Your task to perform on an android device: check battery use Image 0: 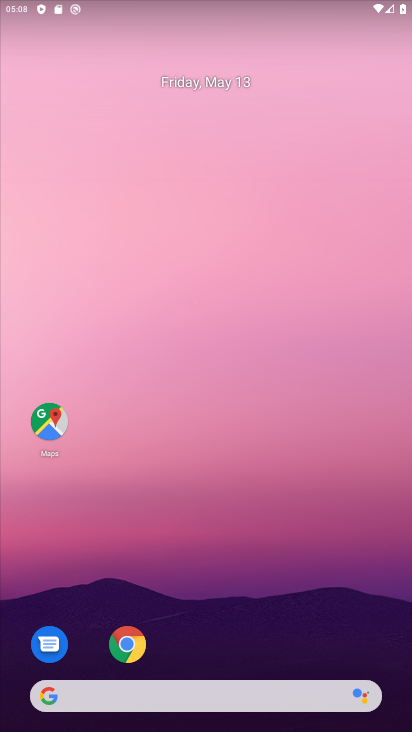
Step 0: drag from (175, 637) to (292, 60)
Your task to perform on an android device: check battery use Image 1: 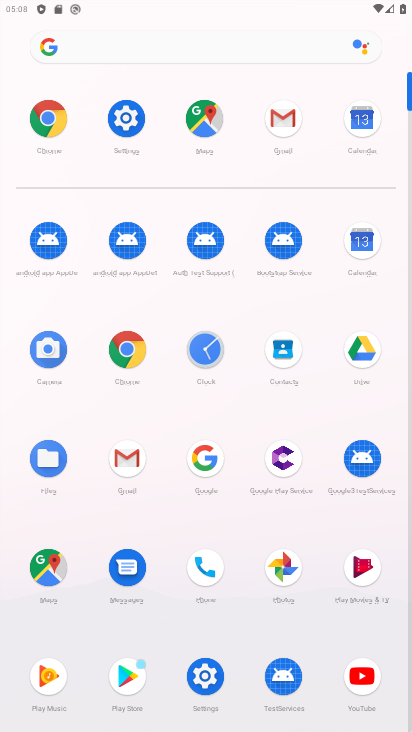
Step 1: click (131, 125)
Your task to perform on an android device: check battery use Image 2: 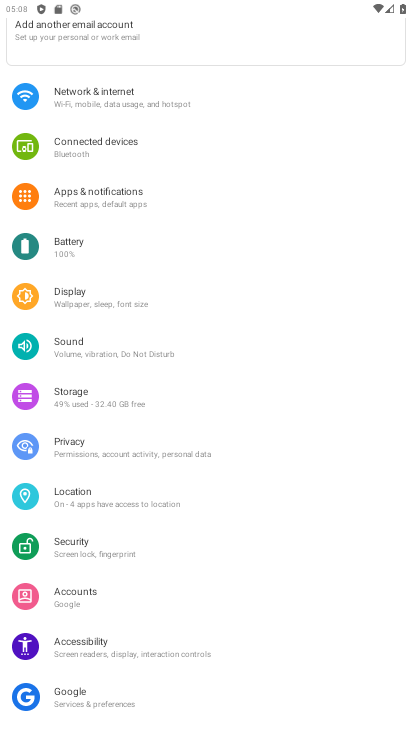
Step 2: click (39, 255)
Your task to perform on an android device: check battery use Image 3: 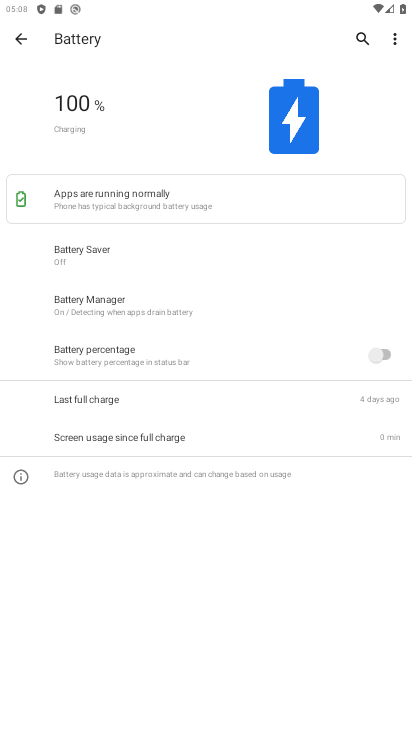
Step 3: click (391, 36)
Your task to perform on an android device: check battery use Image 4: 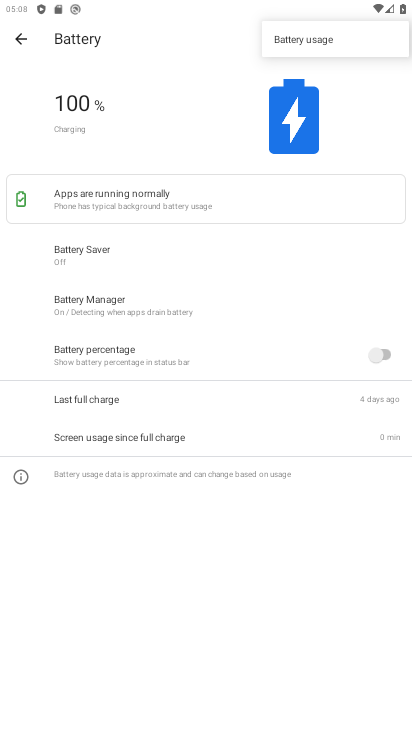
Step 4: click (327, 44)
Your task to perform on an android device: check battery use Image 5: 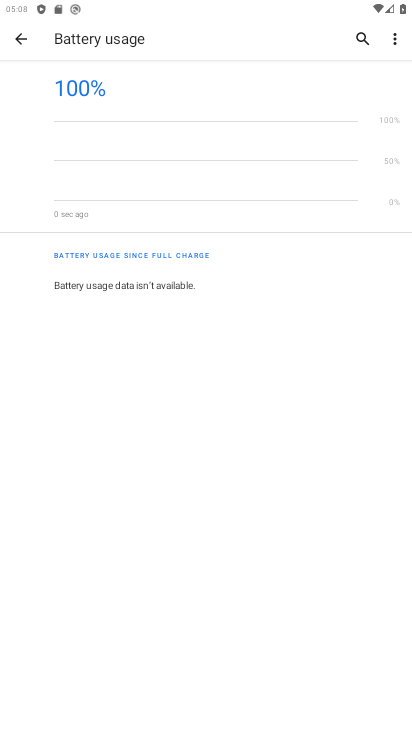
Step 5: task complete